Your task to perform on an android device: Check the news Image 0: 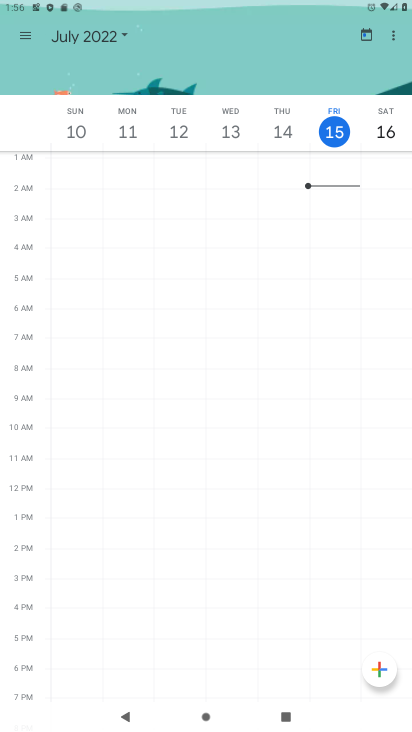
Step 0: press home button
Your task to perform on an android device: Check the news Image 1: 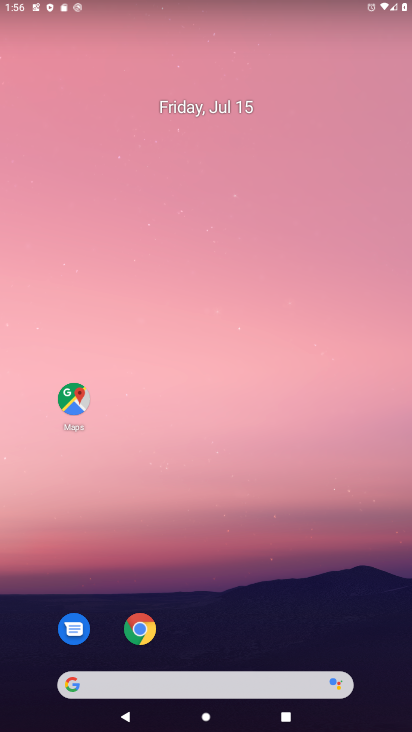
Step 1: drag from (324, 540) to (254, 63)
Your task to perform on an android device: Check the news Image 2: 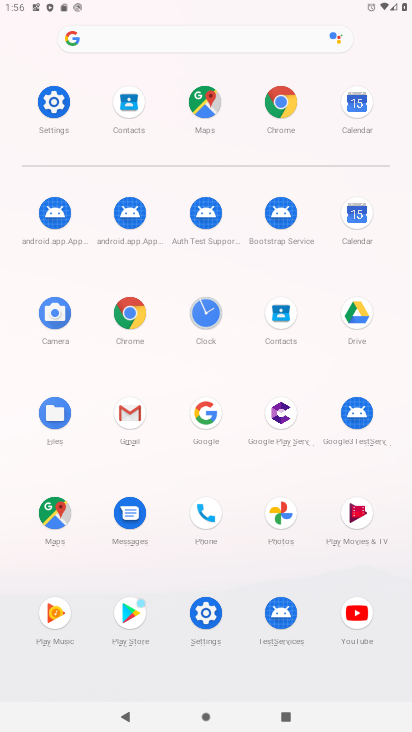
Step 2: click (128, 319)
Your task to perform on an android device: Check the news Image 3: 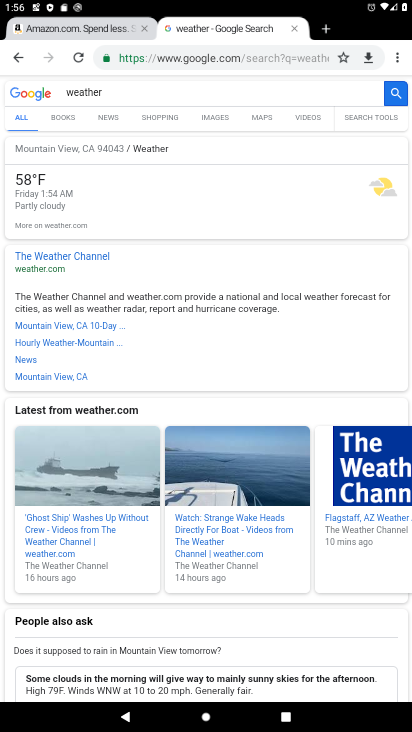
Step 3: click (163, 94)
Your task to perform on an android device: Check the news Image 4: 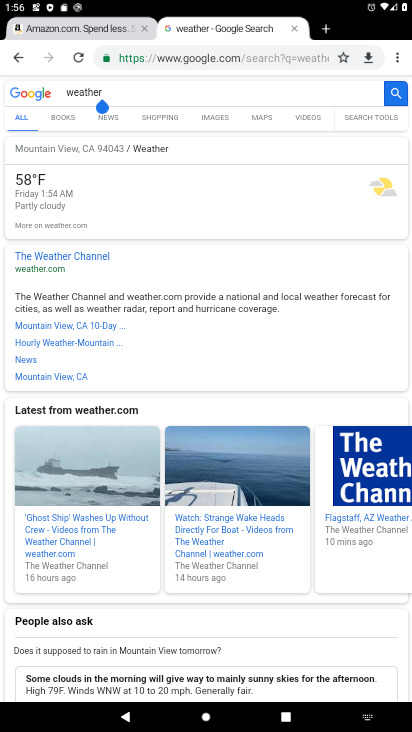
Step 4: click (211, 55)
Your task to perform on an android device: Check the news Image 5: 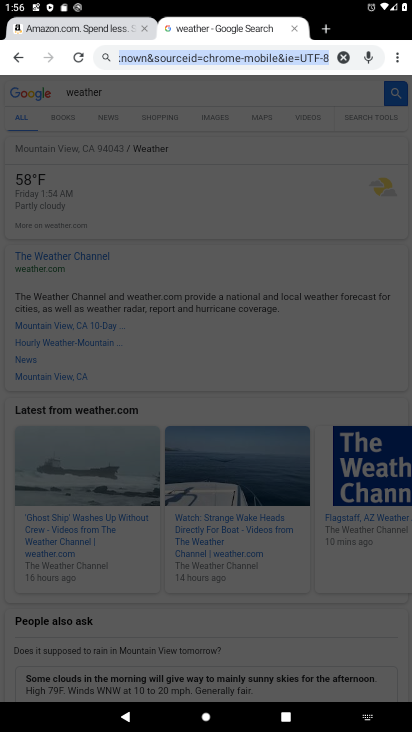
Step 5: type "news"
Your task to perform on an android device: Check the news Image 6: 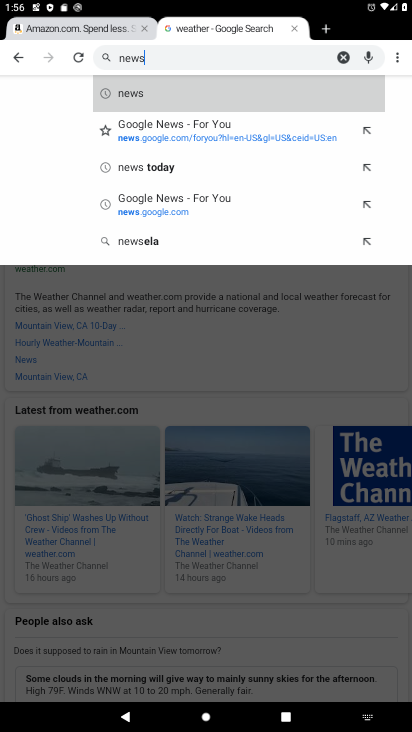
Step 6: click (142, 89)
Your task to perform on an android device: Check the news Image 7: 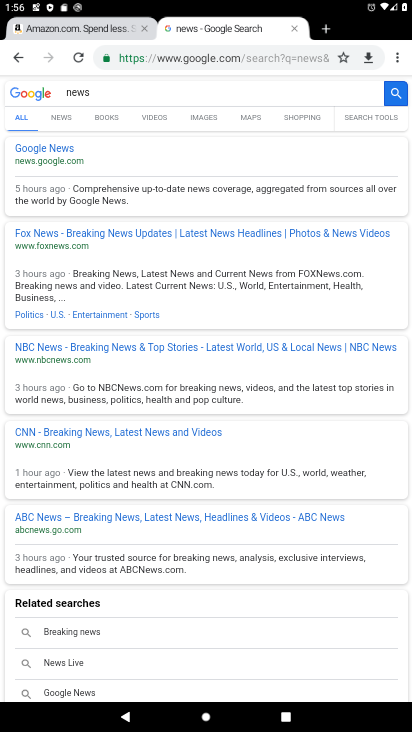
Step 7: click (63, 147)
Your task to perform on an android device: Check the news Image 8: 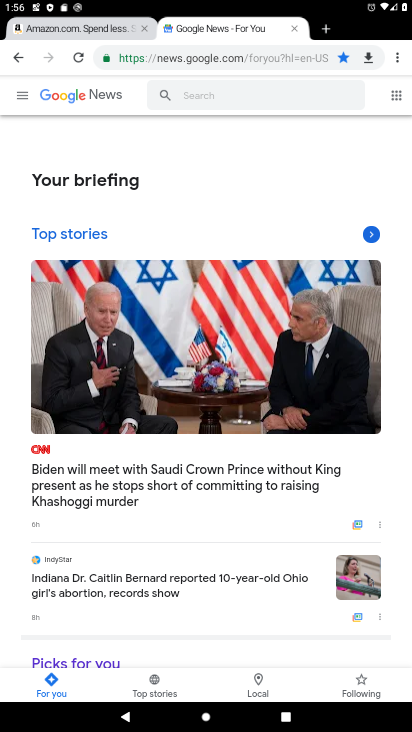
Step 8: task complete